Your task to perform on an android device: search for starred emails in the gmail app Image 0: 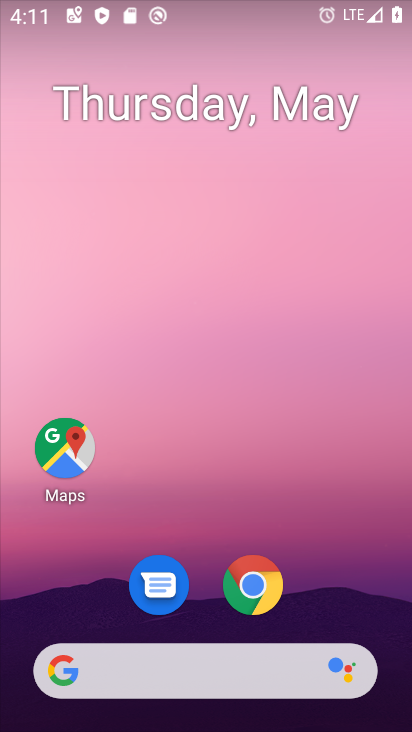
Step 0: drag from (222, 477) to (228, 61)
Your task to perform on an android device: search for starred emails in the gmail app Image 1: 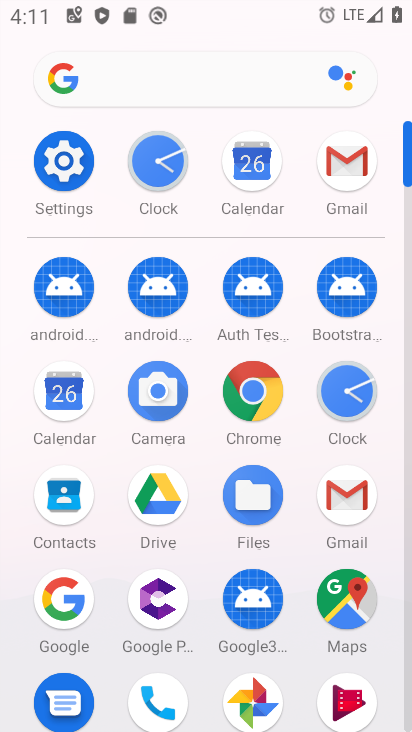
Step 1: click (333, 167)
Your task to perform on an android device: search for starred emails in the gmail app Image 2: 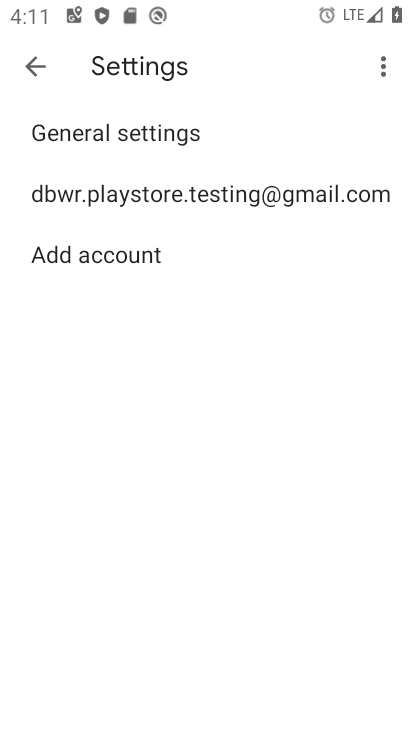
Step 2: click (35, 50)
Your task to perform on an android device: search for starred emails in the gmail app Image 3: 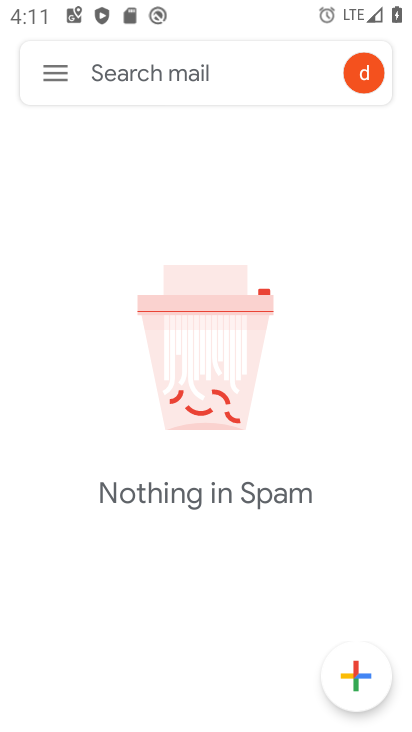
Step 3: click (56, 72)
Your task to perform on an android device: search for starred emails in the gmail app Image 4: 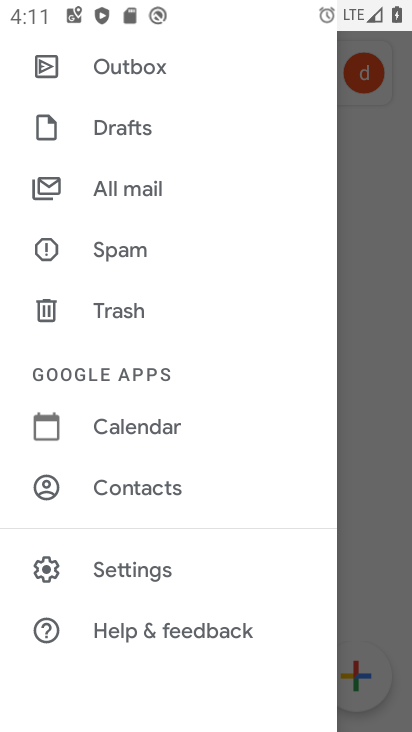
Step 4: drag from (184, 155) to (222, 562)
Your task to perform on an android device: search for starred emails in the gmail app Image 5: 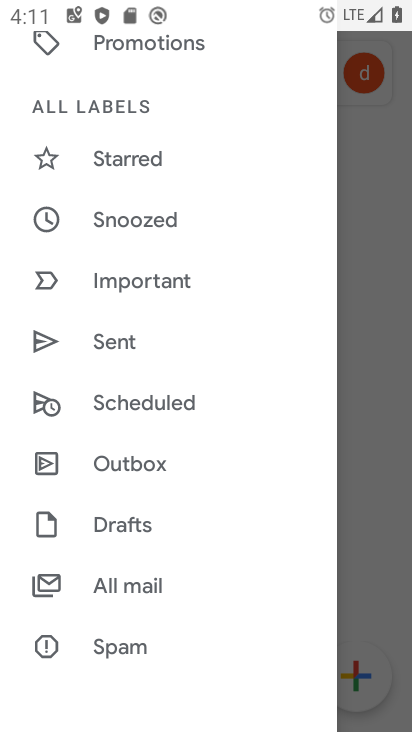
Step 5: click (152, 157)
Your task to perform on an android device: search for starred emails in the gmail app Image 6: 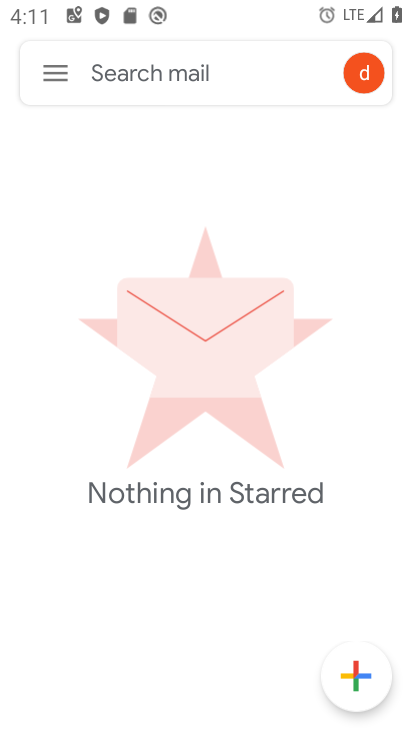
Step 6: task complete